Your task to perform on an android device: open app "Truecaller" (install if not already installed), go to login, and select forgot password Image 0: 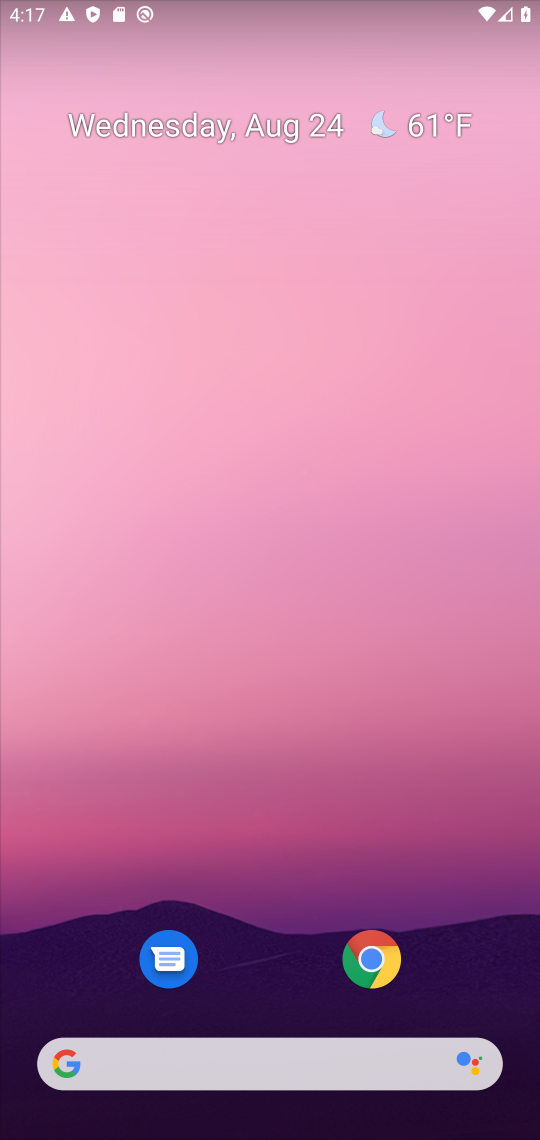
Step 0: drag from (299, 984) to (440, 4)
Your task to perform on an android device: open app "Truecaller" (install if not already installed), go to login, and select forgot password Image 1: 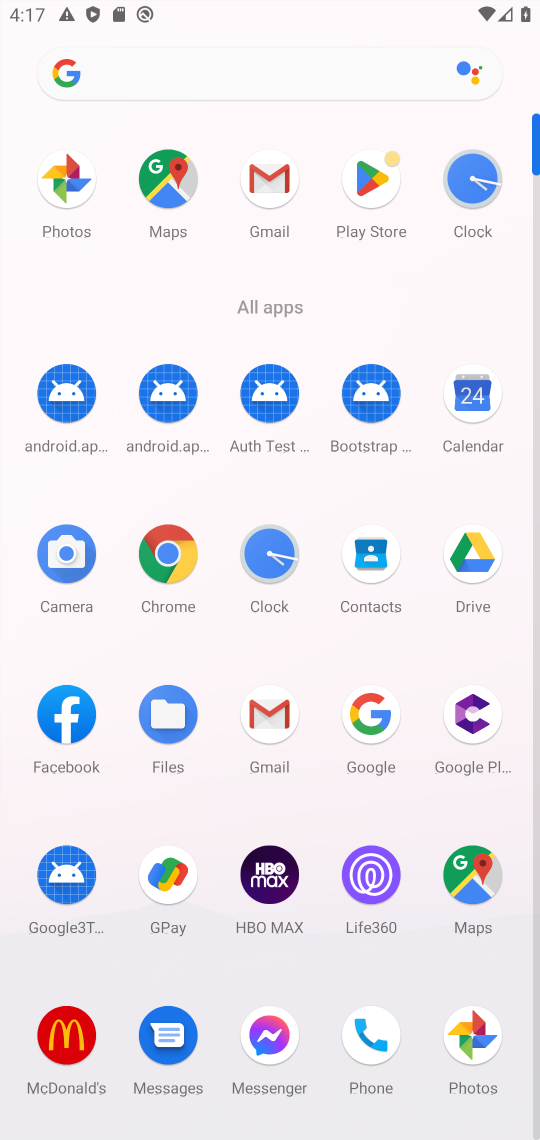
Step 1: click (386, 220)
Your task to perform on an android device: open app "Truecaller" (install if not already installed), go to login, and select forgot password Image 2: 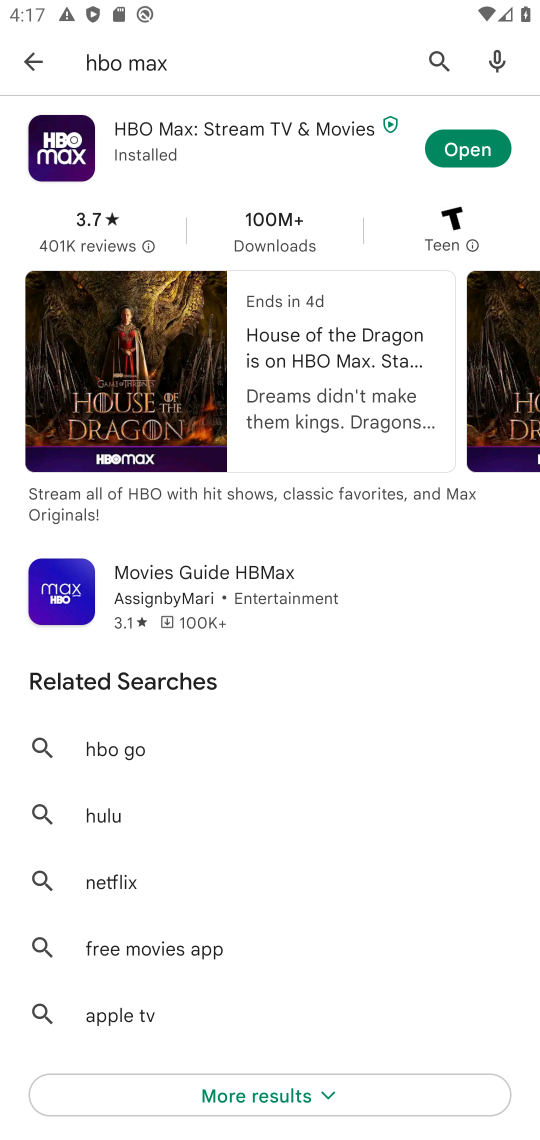
Step 2: click (428, 66)
Your task to perform on an android device: open app "Truecaller" (install if not already installed), go to login, and select forgot password Image 3: 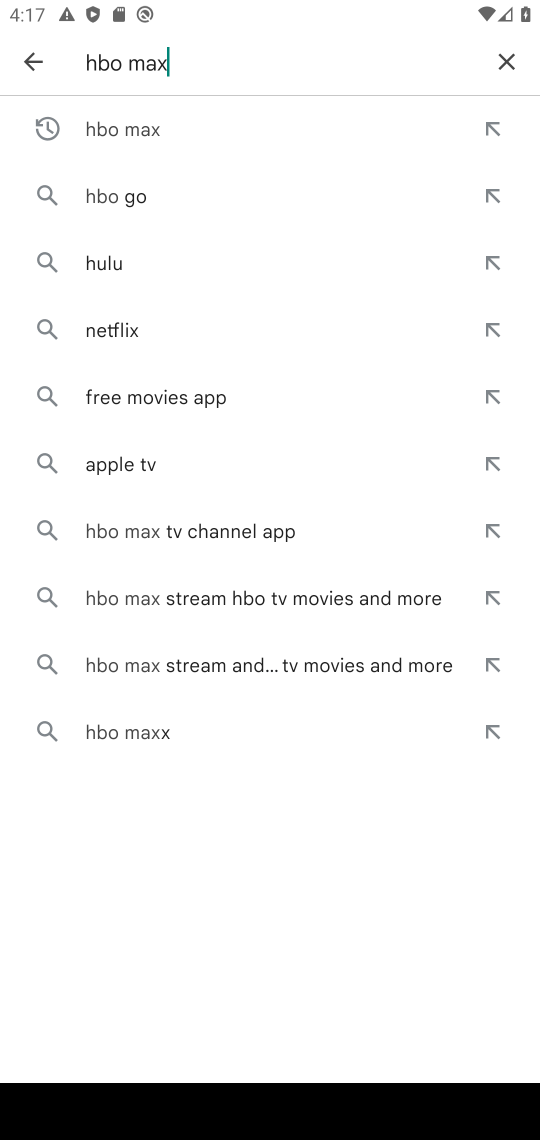
Step 3: click (498, 54)
Your task to perform on an android device: open app "Truecaller" (install if not already installed), go to login, and select forgot password Image 4: 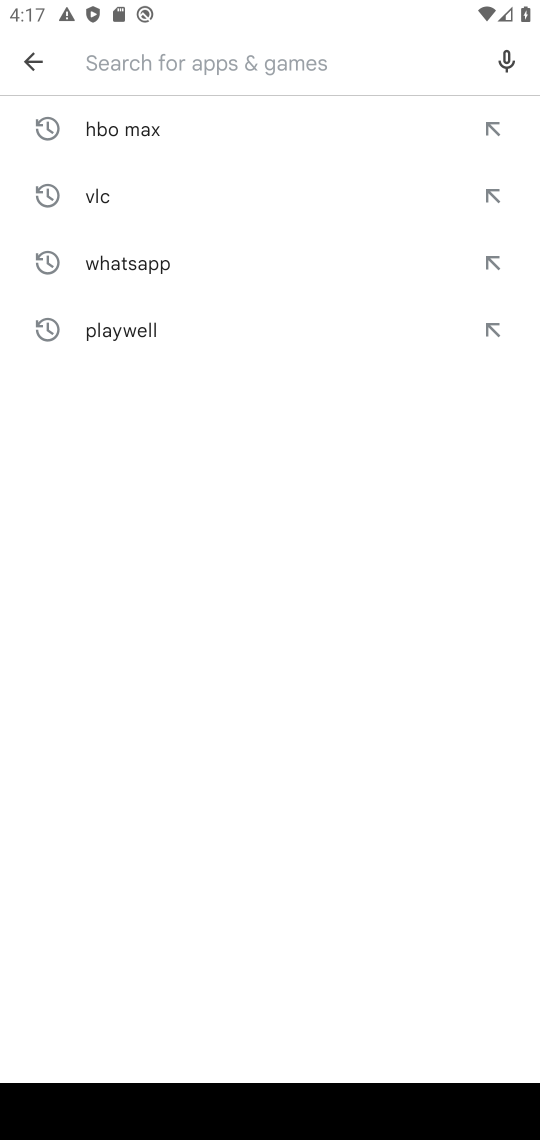
Step 4: type "terucallweer"
Your task to perform on an android device: open app "Truecaller" (install if not already installed), go to login, and select forgot password Image 5: 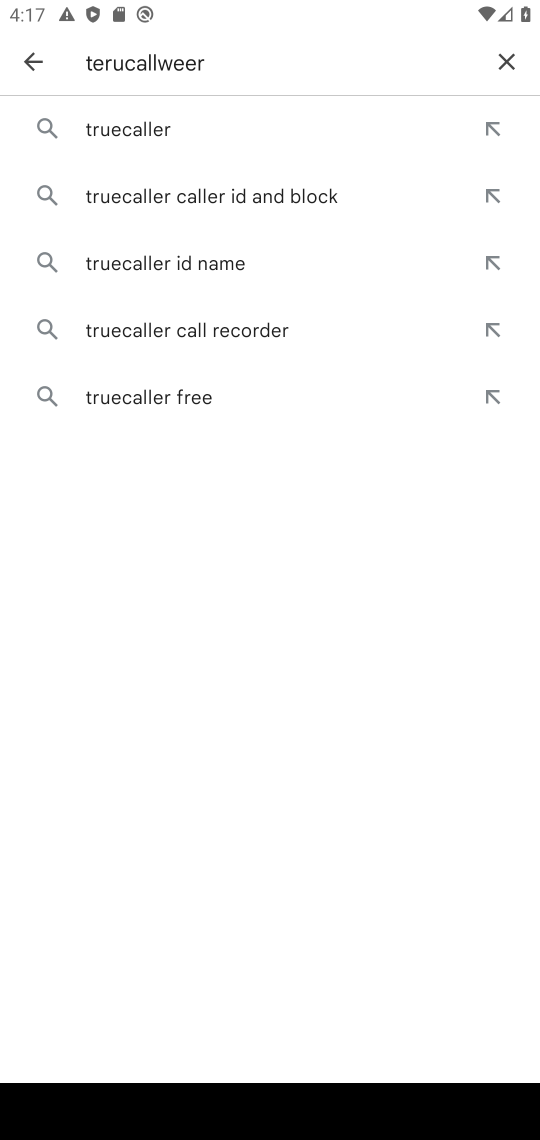
Step 5: click (140, 120)
Your task to perform on an android device: open app "Truecaller" (install if not already installed), go to login, and select forgot password Image 6: 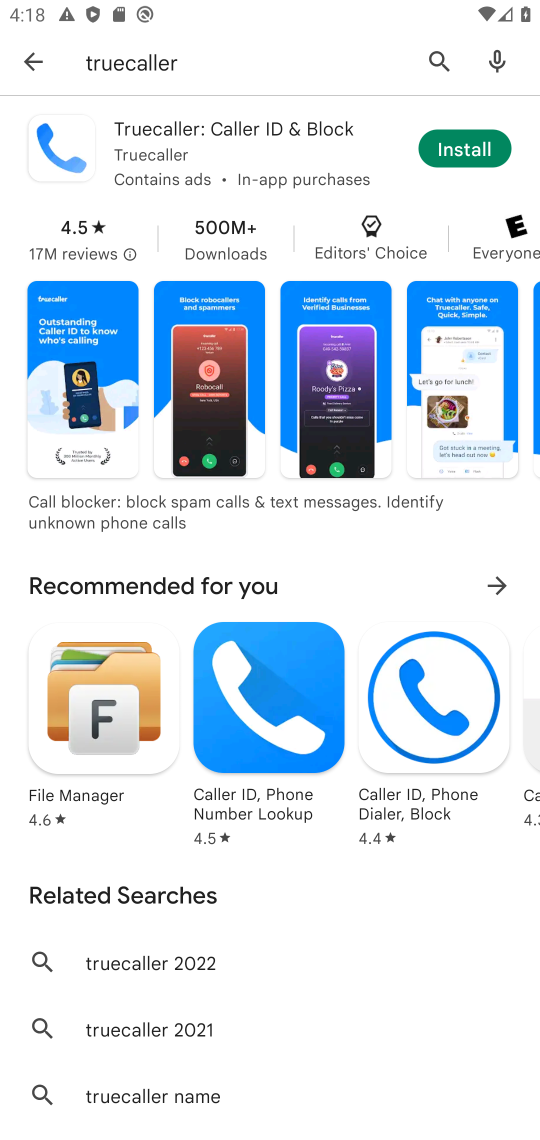
Step 6: click (453, 144)
Your task to perform on an android device: open app "Truecaller" (install if not already installed), go to login, and select forgot password Image 7: 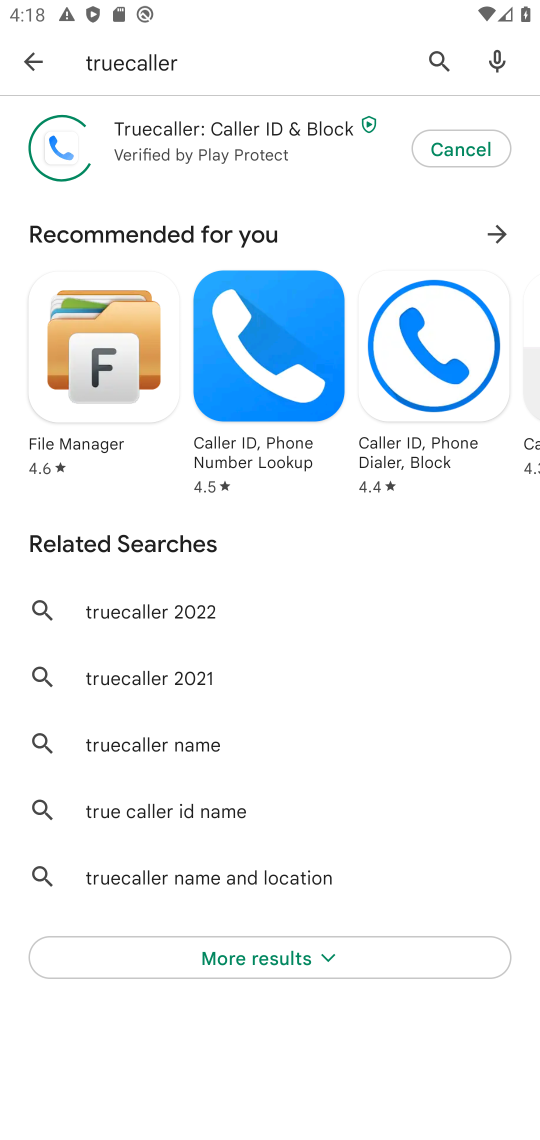
Step 7: task complete